Your task to perform on an android device: Show me recent news Image 0: 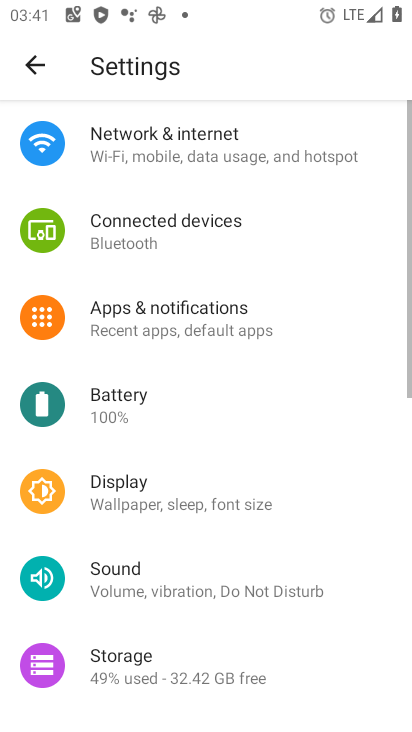
Step 0: press home button
Your task to perform on an android device: Show me recent news Image 1: 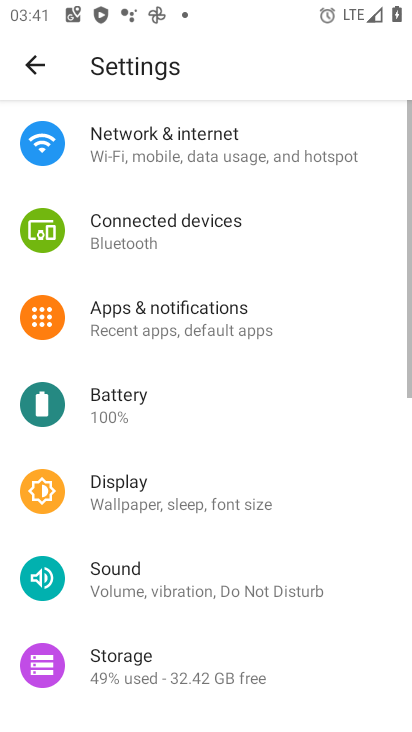
Step 1: press home button
Your task to perform on an android device: Show me recent news Image 2: 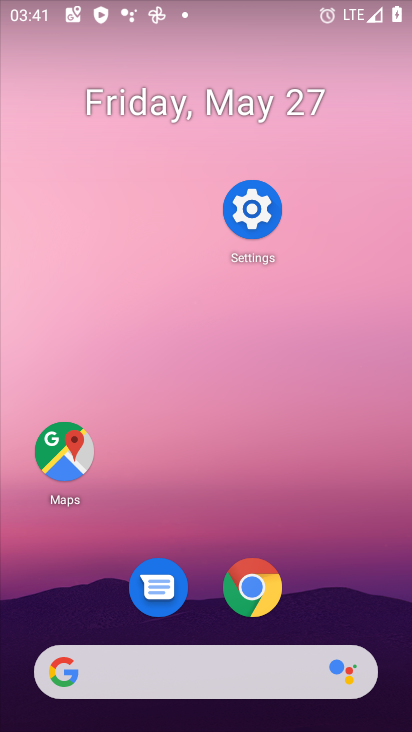
Step 2: click (52, 676)
Your task to perform on an android device: Show me recent news Image 3: 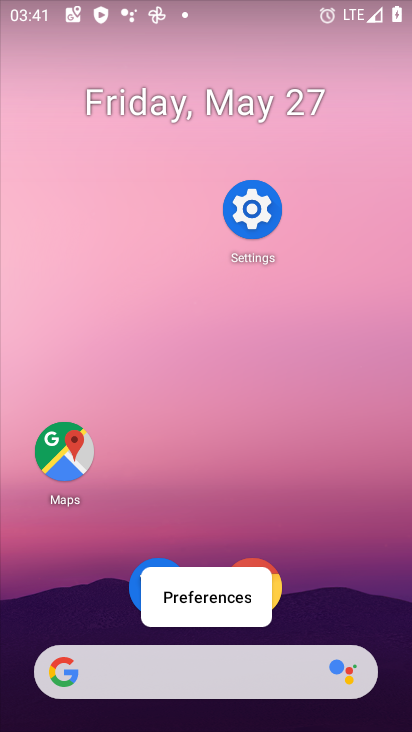
Step 3: click (57, 670)
Your task to perform on an android device: Show me recent news Image 4: 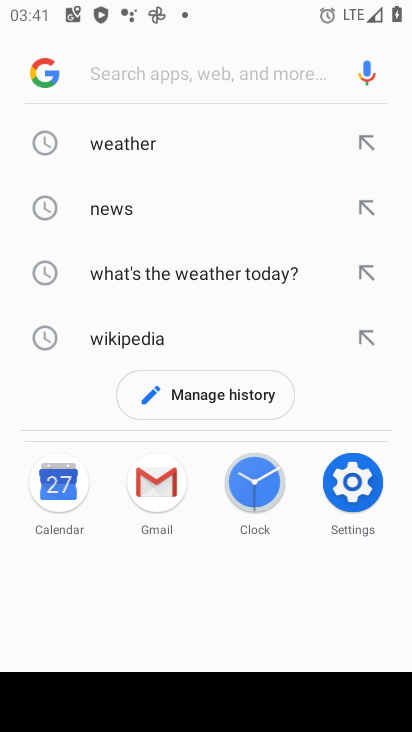
Step 4: type "recent news"
Your task to perform on an android device: Show me recent news Image 5: 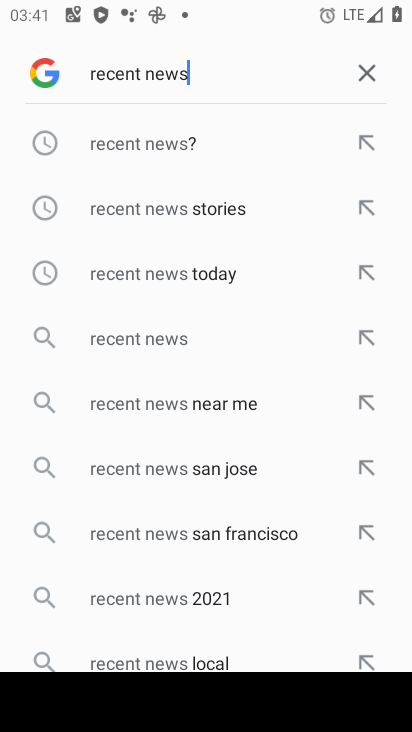
Step 5: click (141, 145)
Your task to perform on an android device: Show me recent news Image 6: 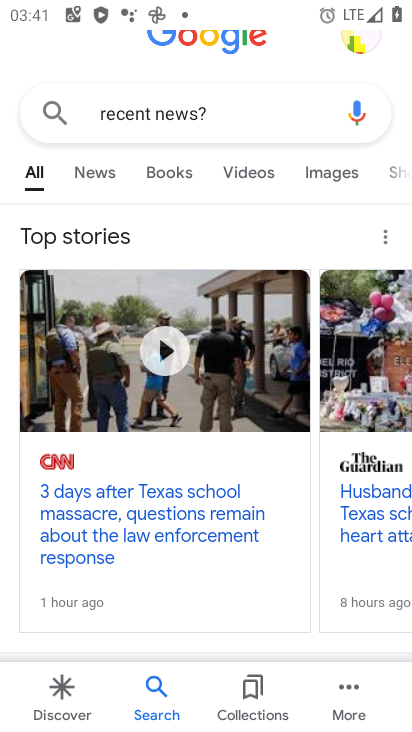
Step 6: task complete